Your task to perform on an android device: Go to network settings Image 0: 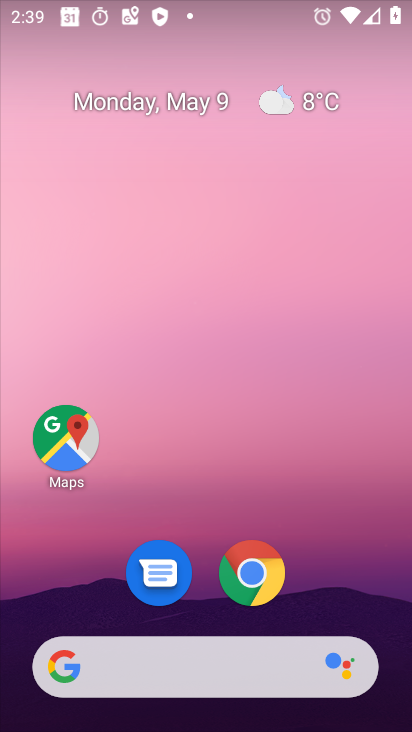
Step 0: press home button
Your task to perform on an android device: Go to network settings Image 1: 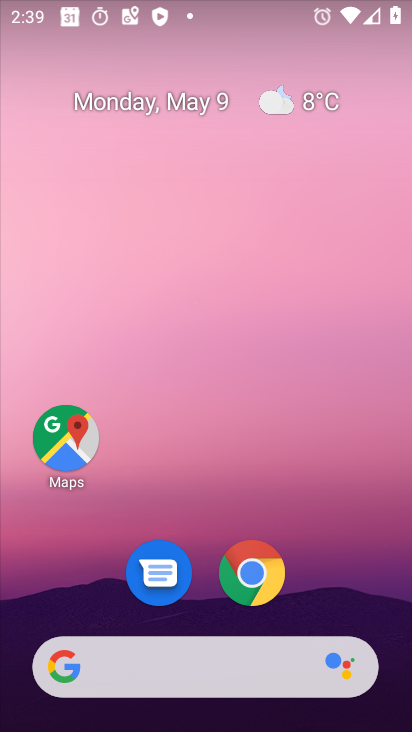
Step 1: drag from (216, 530) to (337, 58)
Your task to perform on an android device: Go to network settings Image 2: 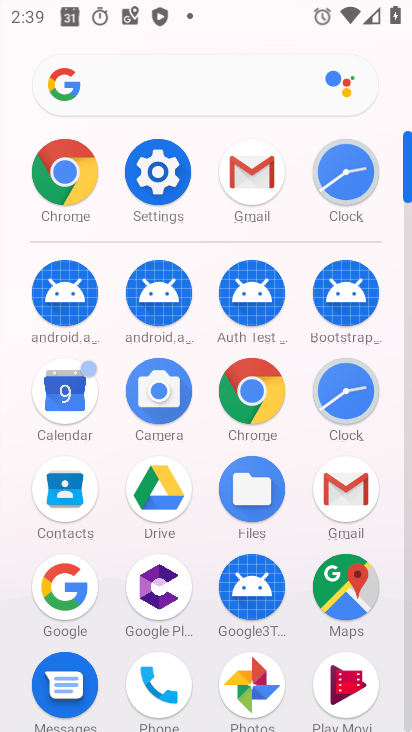
Step 2: click (161, 195)
Your task to perform on an android device: Go to network settings Image 3: 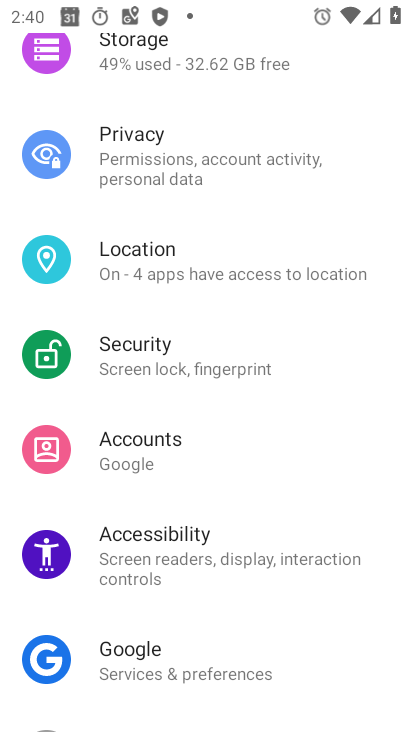
Step 3: drag from (300, 167) to (216, 662)
Your task to perform on an android device: Go to network settings Image 4: 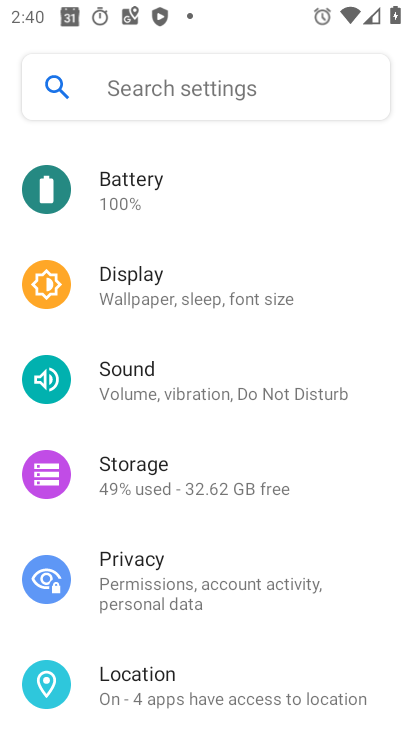
Step 4: drag from (296, 390) to (243, 661)
Your task to perform on an android device: Go to network settings Image 5: 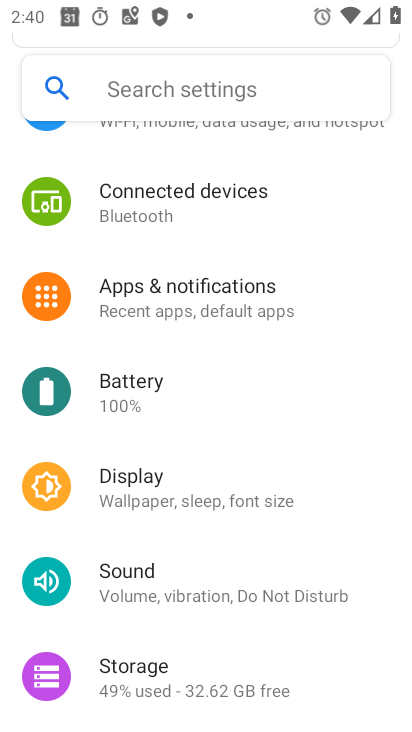
Step 5: drag from (302, 233) to (245, 705)
Your task to perform on an android device: Go to network settings Image 6: 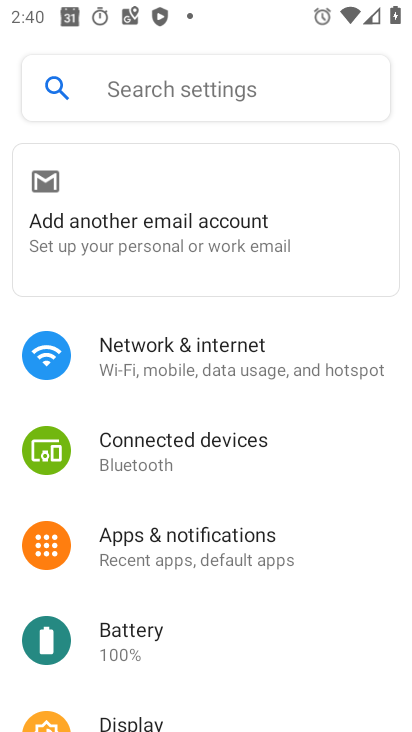
Step 6: click (217, 357)
Your task to perform on an android device: Go to network settings Image 7: 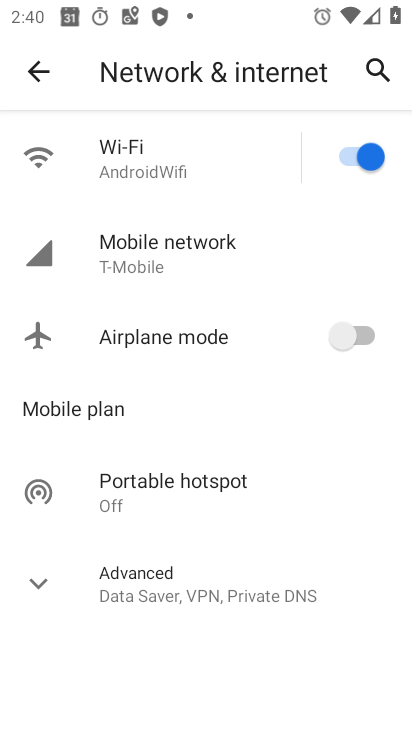
Step 7: task complete